Your task to perform on an android device: Open Android settings Image 0: 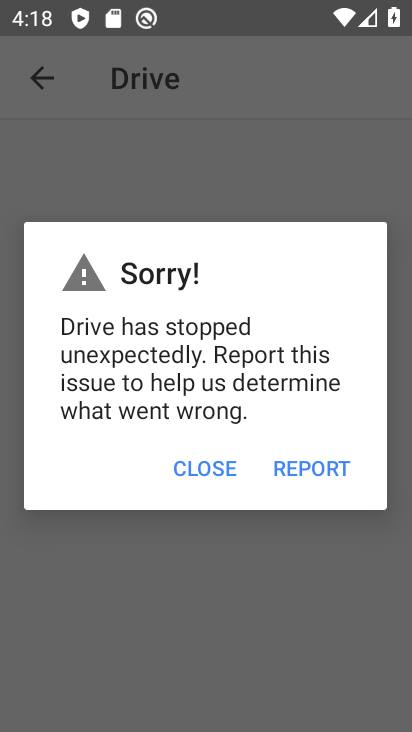
Step 0: press home button
Your task to perform on an android device: Open Android settings Image 1: 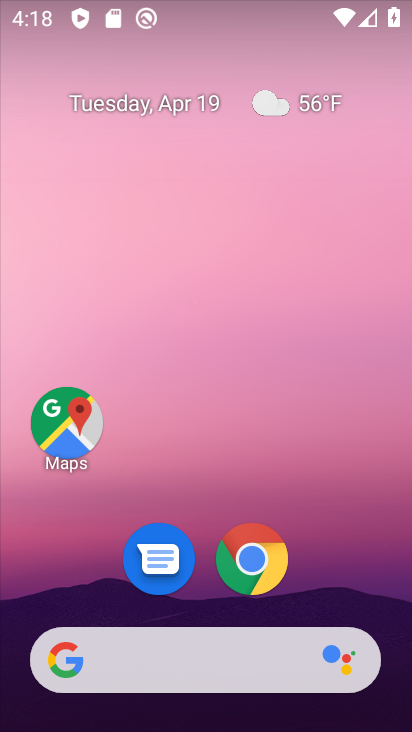
Step 1: click (371, 25)
Your task to perform on an android device: Open Android settings Image 2: 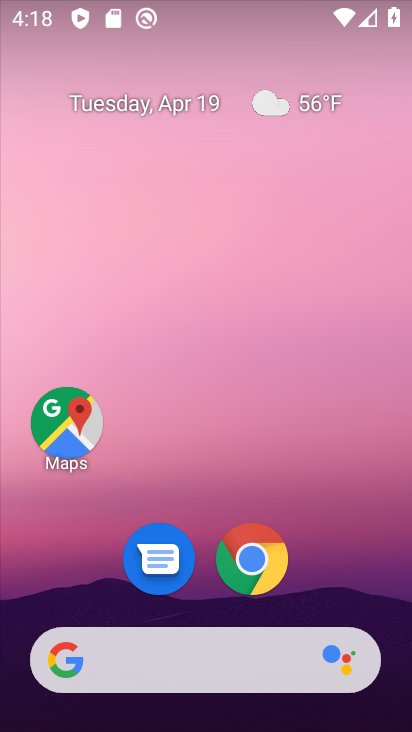
Step 2: drag from (351, 477) to (349, 144)
Your task to perform on an android device: Open Android settings Image 3: 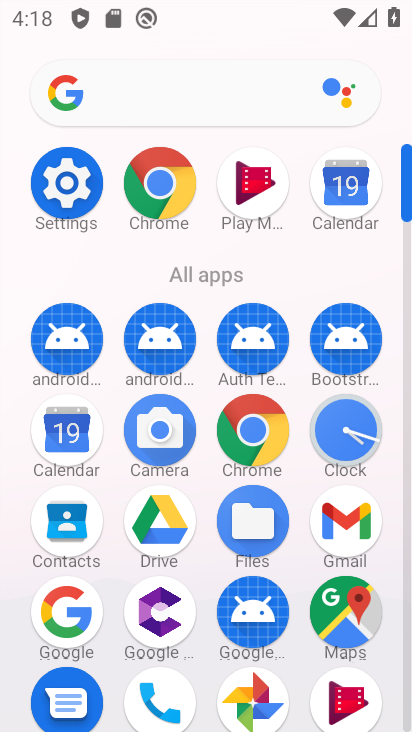
Step 3: click (65, 178)
Your task to perform on an android device: Open Android settings Image 4: 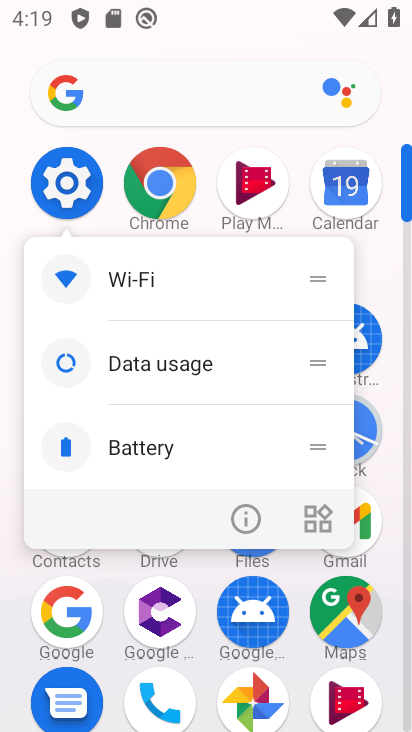
Step 4: click (65, 178)
Your task to perform on an android device: Open Android settings Image 5: 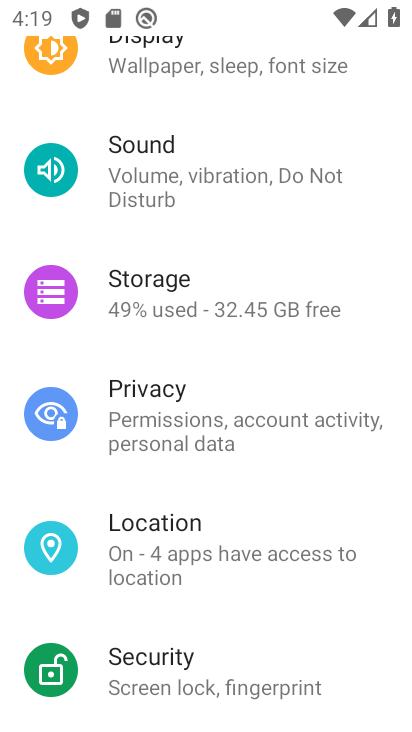
Step 5: drag from (392, 574) to (397, 176)
Your task to perform on an android device: Open Android settings Image 6: 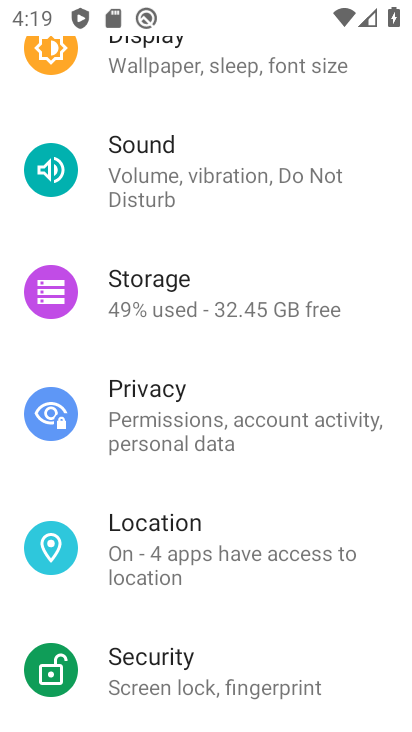
Step 6: drag from (389, 627) to (397, 238)
Your task to perform on an android device: Open Android settings Image 7: 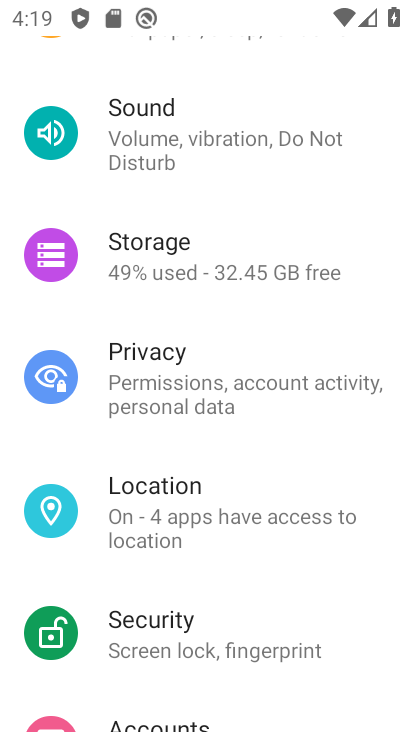
Step 7: drag from (402, 161) to (411, 513)
Your task to perform on an android device: Open Android settings Image 8: 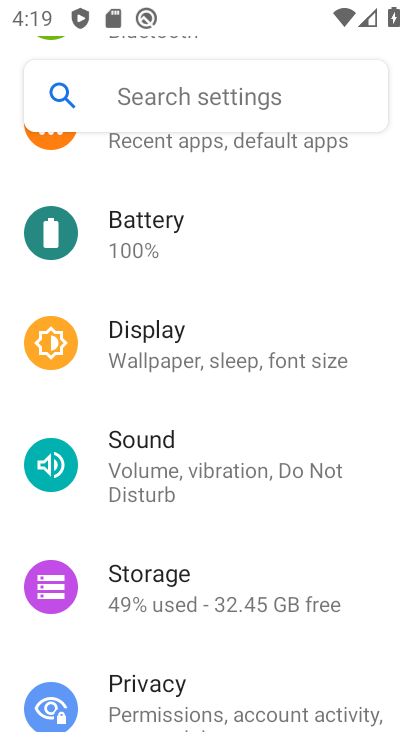
Step 8: drag from (408, 287) to (410, 577)
Your task to perform on an android device: Open Android settings Image 9: 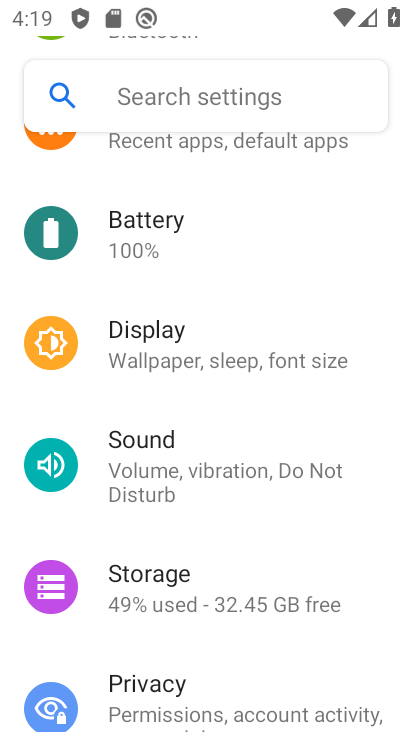
Step 9: drag from (405, 344) to (411, 609)
Your task to perform on an android device: Open Android settings Image 10: 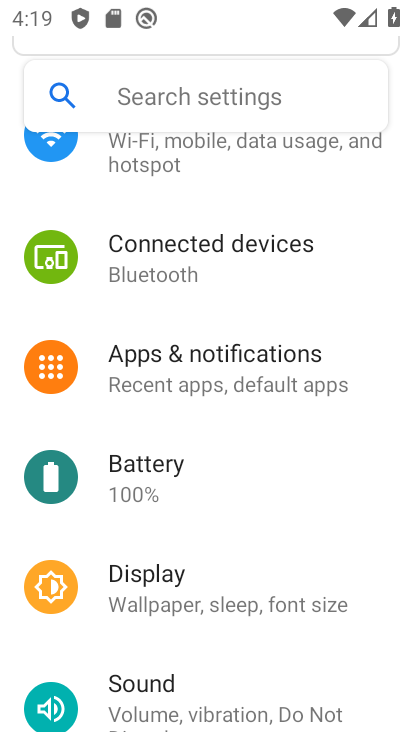
Step 10: drag from (411, 503) to (411, 568)
Your task to perform on an android device: Open Android settings Image 11: 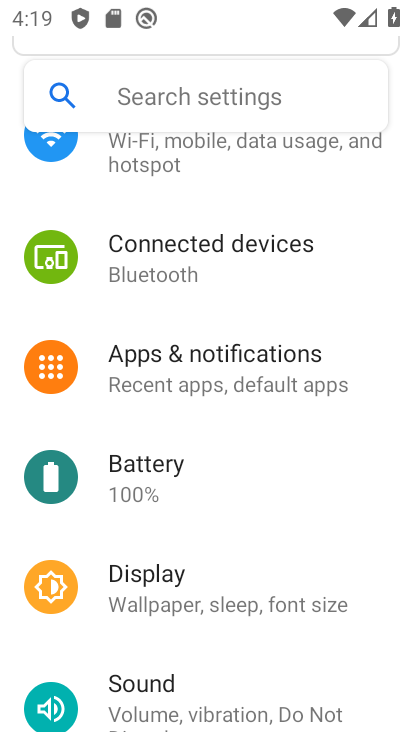
Step 11: click (408, 379)
Your task to perform on an android device: Open Android settings Image 12: 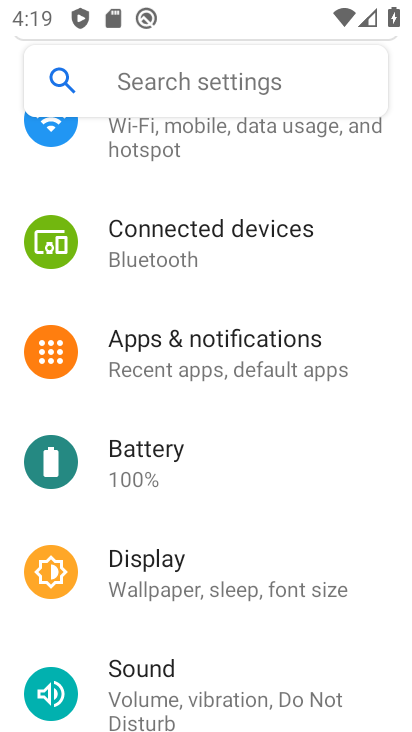
Step 12: task complete